Your task to perform on an android device: toggle airplane mode Image 0: 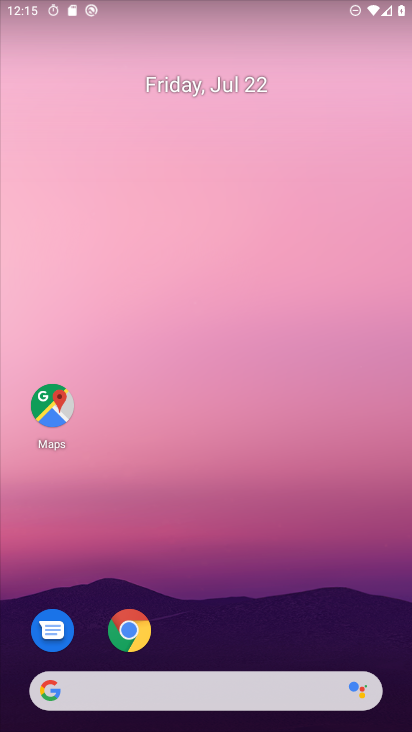
Step 0: drag from (207, 0) to (200, 589)
Your task to perform on an android device: toggle airplane mode Image 1: 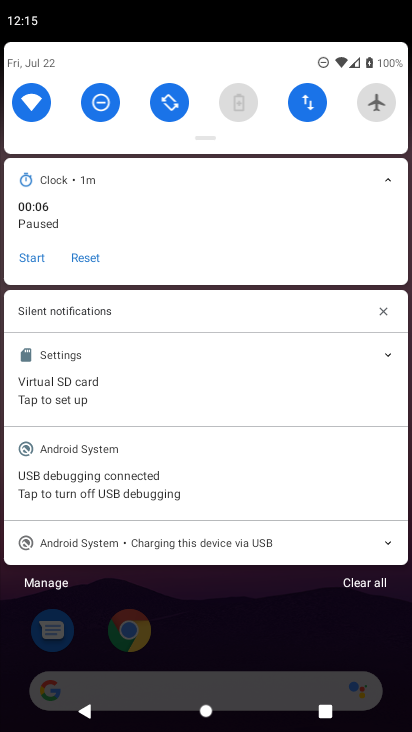
Step 1: click (371, 100)
Your task to perform on an android device: toggle airplane mode Image 2: 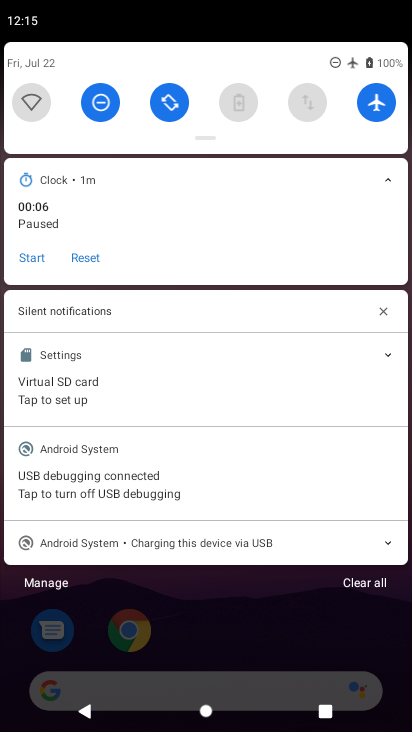
Step 2: task complete